Your task to perform on an android device: Open Chrome and go to settings Image 0: 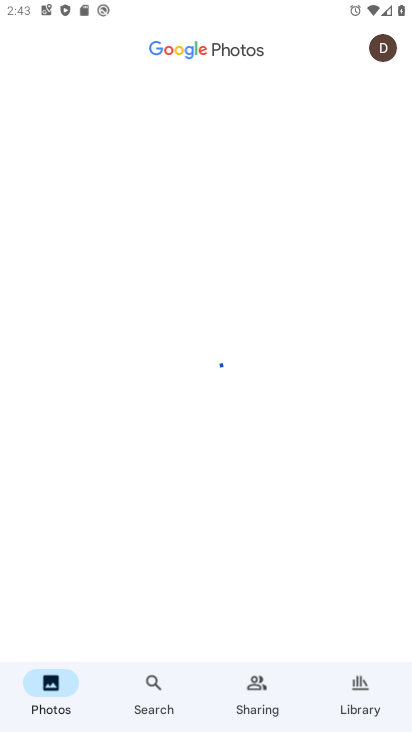
Step 0: press home button
Your task to perform on an android device: Open Chrome and go to settings Image 1: 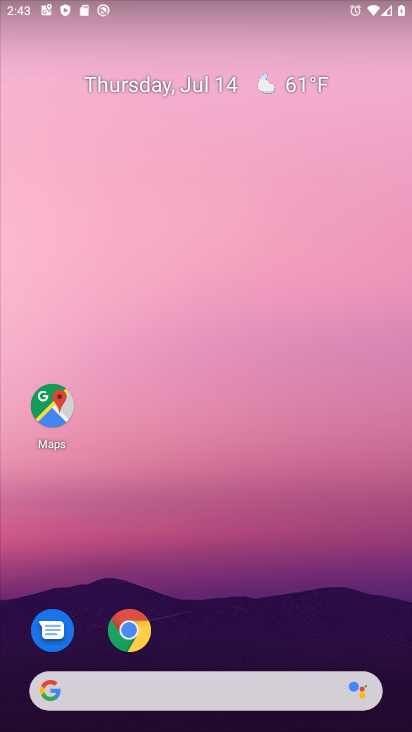
Step 1: click (126, 630)
Your task to perform on an android device: Open Chrome and go to settings Image 2: 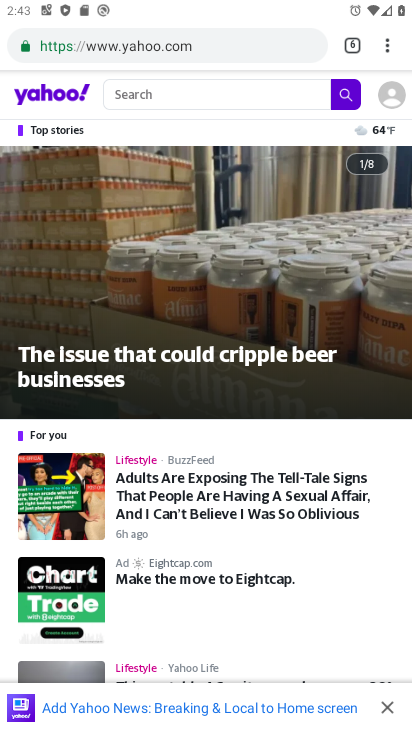
Step 2: task complete